Your task to perform on an android device: Open Youtube and go to the subscriptions tab Image 0: 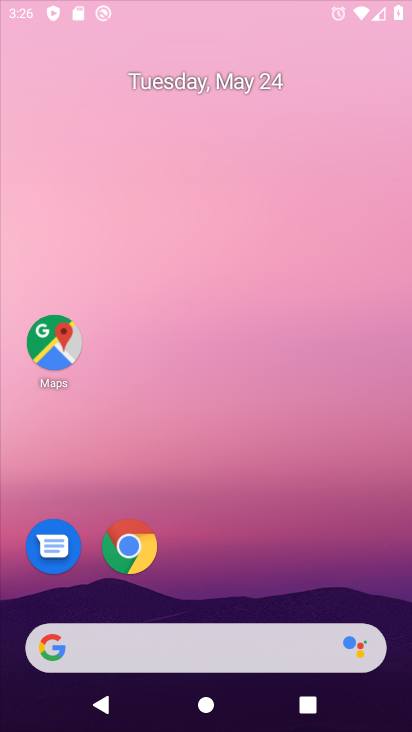
Step 0: drag from (143, 21) to (162, 124)
Your task to perform on an android device: Open Youtube and go to the subscriptions tab Image 1: 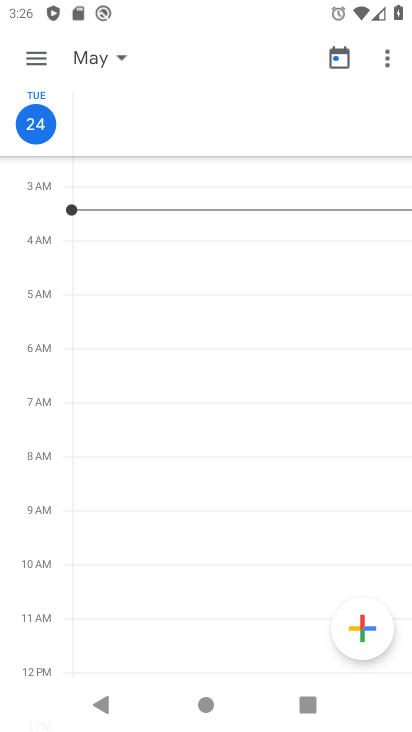
Step 1: drag from (247, 540) to (132, 139)
Your task to perform on an android device: Open Youtube and go to the subscriptions tab Image 2: 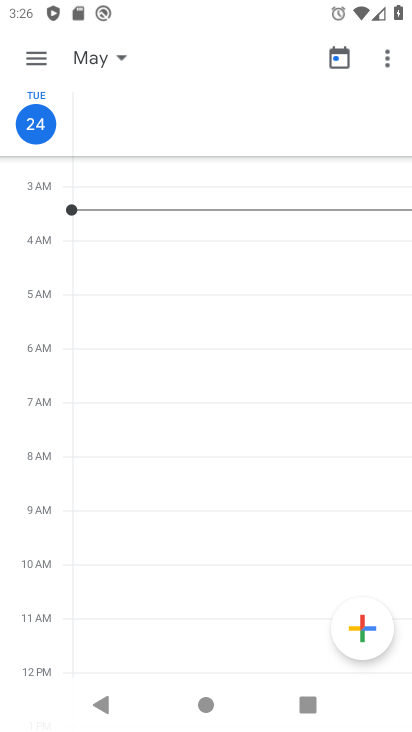
Step 2: press back button
Your task to perform on an android device: Open Youtube and go to the subscriptions tab Image 3: 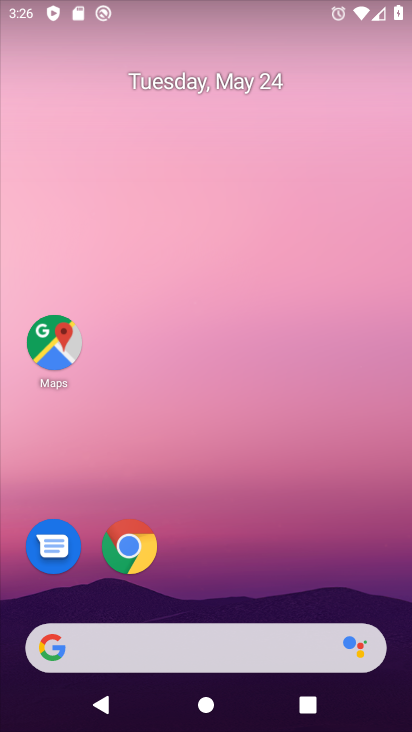
Step 3: drag from (3, 306) to (27, 276)
Your task to perform on an android device: Open Youtube and go to the subscriptions tab Image 4: 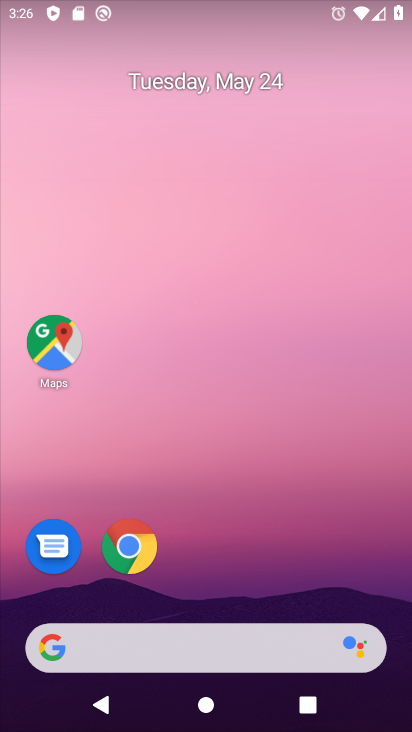
Step 4: drag from (293, 502) to (179, 157)
Your task to perform on an android device: Open Youtube and go to the subscriptions tab Image 5: 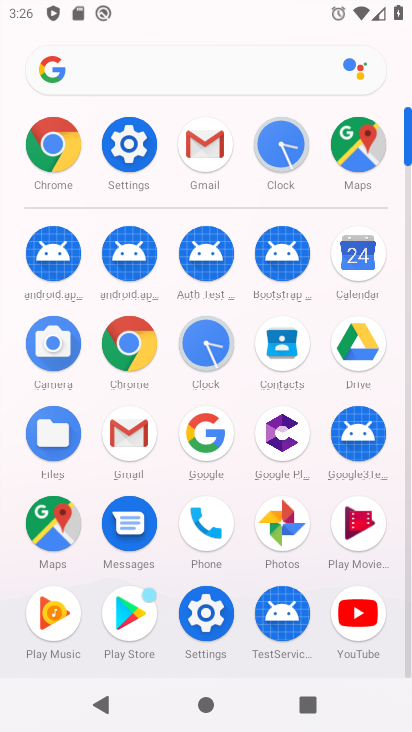
Step 5: click (356, 625)
Your task to perform on an android device: Open Youtube and go to the subscriptions tab Image 6: 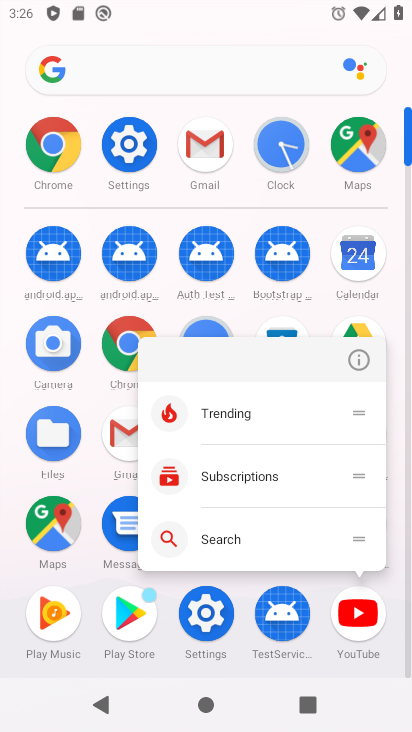
Step 6: click (241, 461)
Your task to perform on an android device: Open Youtube and go to the subscriptions tab Image 7: 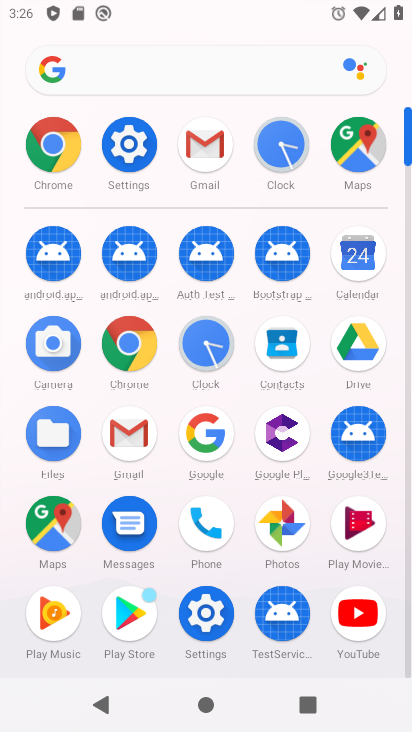
Step 7: click (242, 469)
Your task to perform on an android device: Open Youtube and go to the subscriptions tab Image 8: 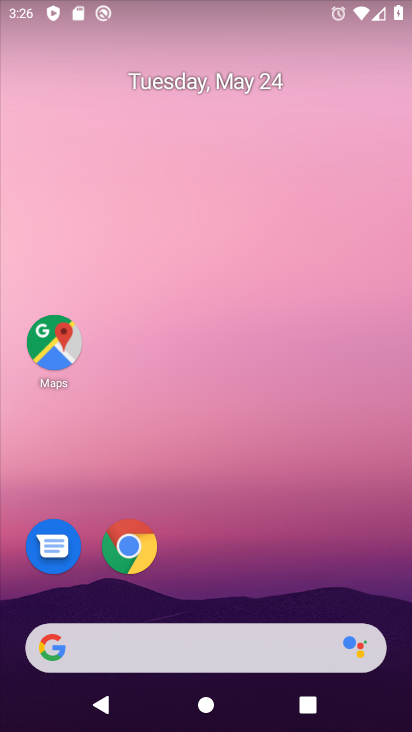
Step 8: task complete